Your task to perform on an android device: open a bookmark in the chrome app Image 0: 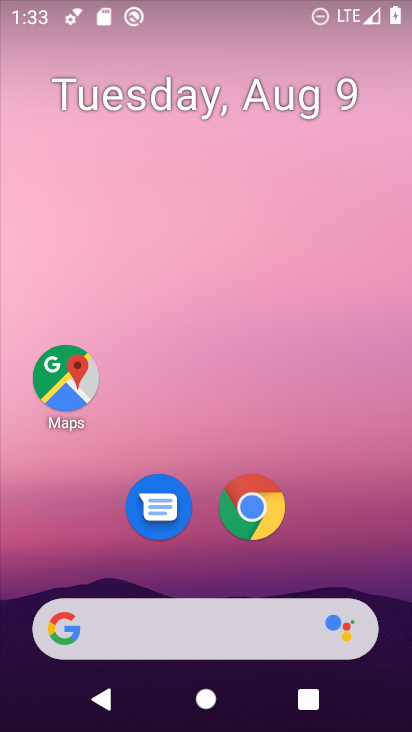
Step 0: click (250, 518)
Your task to perform on an android device: open a bookmark in the chrome app Image 1: 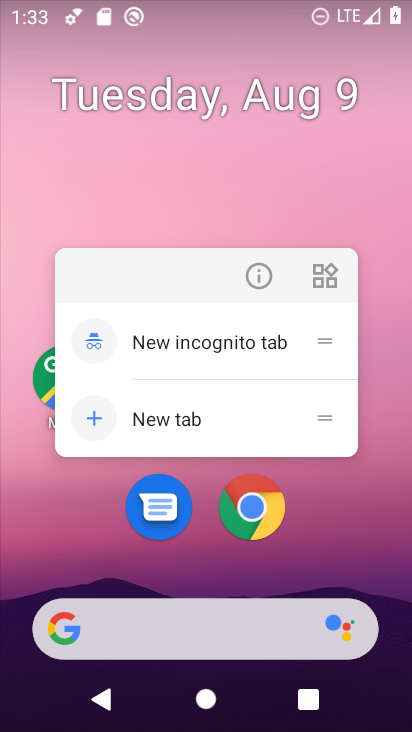
Step 1: click (328, 512)
Your task to perform on an android device: open a bookmark in the chrome app Image 2: 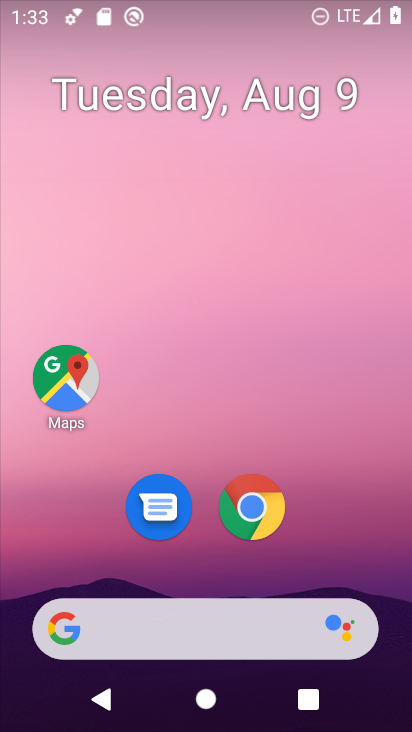
Step 2: click (249, 507)
Your task to perform on an android device: open a bookmark in the chrome app Image 3: 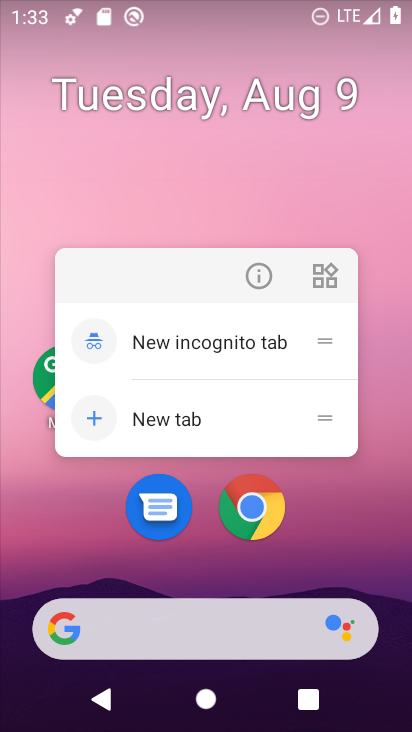
Step 3: click (298, 536)
Your task to perform on an android device: open a bookmark in the chrome app Image 4: 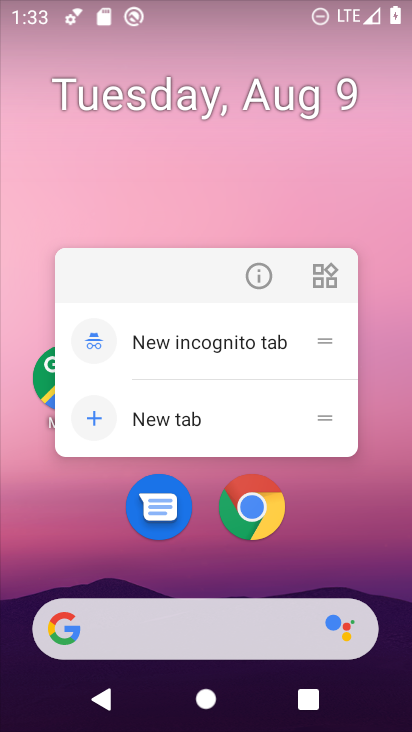
Step 4: click (273, 529)
Your task to perform on an android device: open a bookmark in the chrome app Image 5: 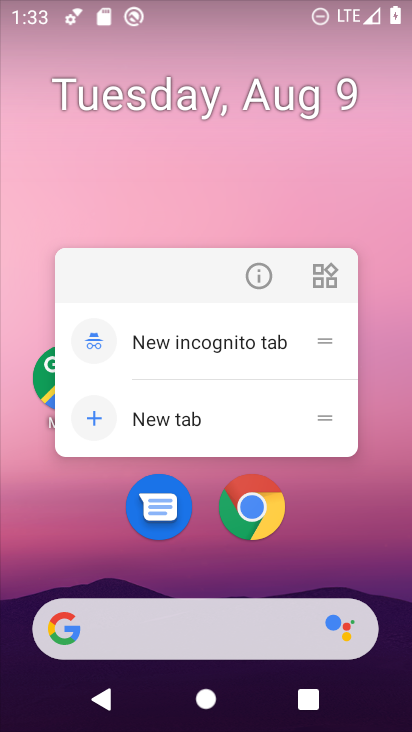
Step 5: click (273, 529)
Your task to perform on an android device: open a bookmark in the chrome app Image 6: 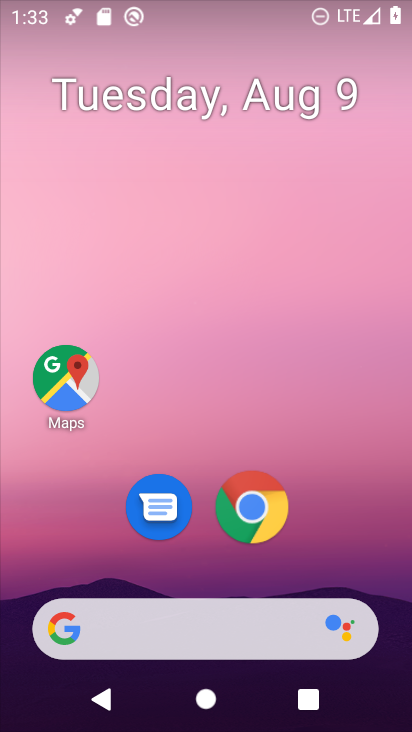
Step 6: click (290, 530)
Your task to perform on an android device: open a bookmark in the chrome app Image 7: 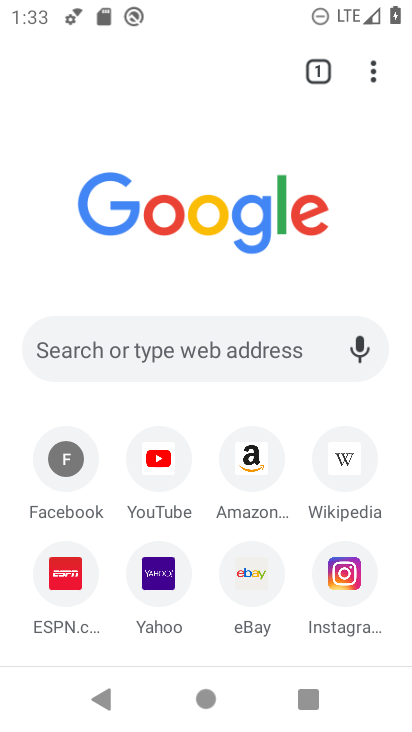
Step 7: click (378, 70)
Your task to perform on an android device: open a bookmark in the chrome app Image 8: 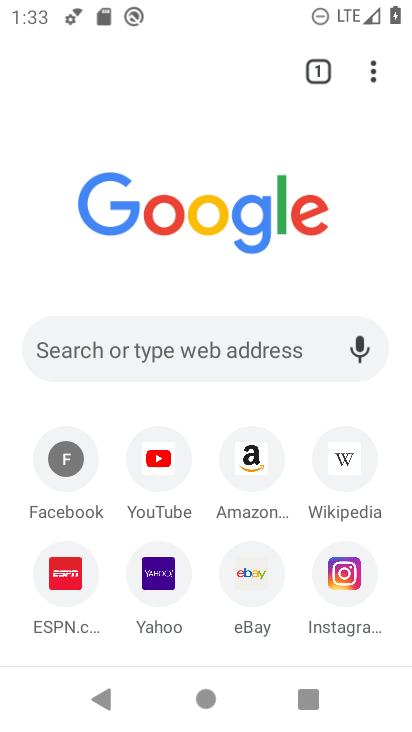
Step 8: click (390, 79)
Your task to perform on an android device: open a bookmark in the chrome app Image 9: 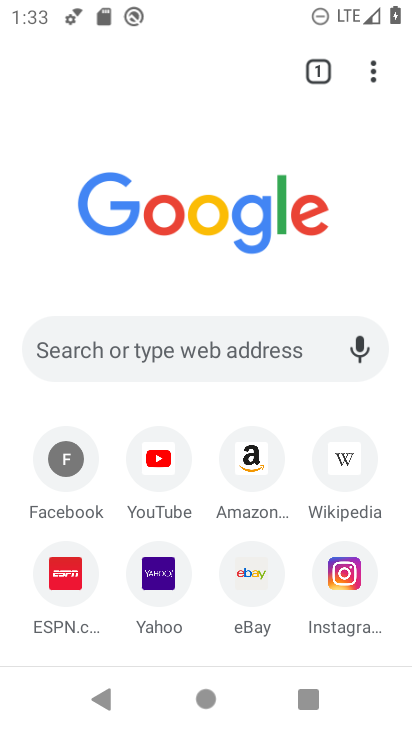
Step 9: click (388, 67)
Your task to perform on an android device: open a bookmark in the chrome app Image 10: 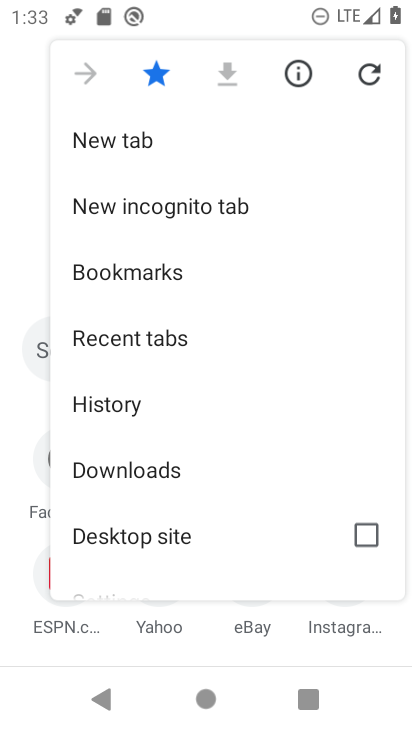
Step 10: click (155, 270)
Your task to perform on an android device: open a bookmark in the chrome app Image 11: 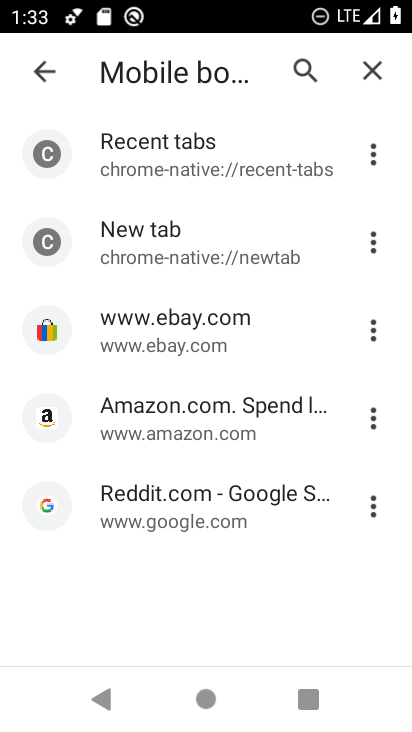
Step 11: task complete